Your task to perform on an android device: Open ESPN.com Image 0: 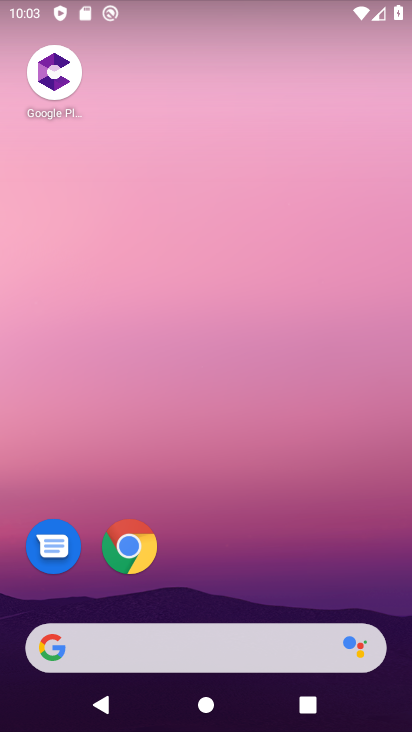
Step 0: click (128, 549)
Your task to perform on an android device: Open ESPN.com Image 1: 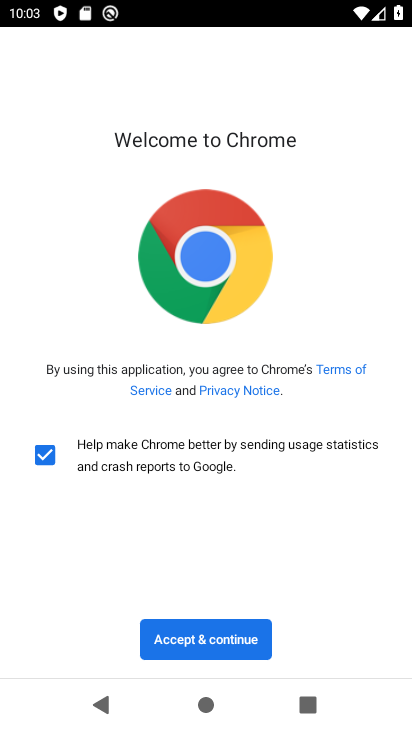
Step 1: click (211, 637)
Your task to perform on an android device: Open ESPN.com Image 2: 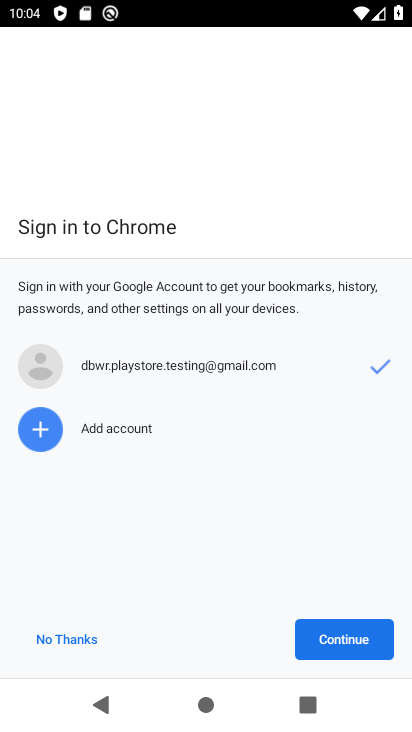
Step 2: click (351, 639)
Your task to perform on an android device: Open ESPN.com Image 3: 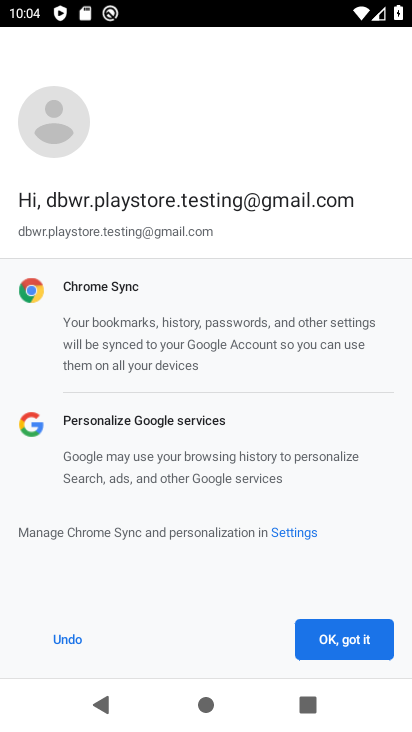
Step 3: click (351, 639)
Your task to perform on an android device: Open ESPN.com Image 4: 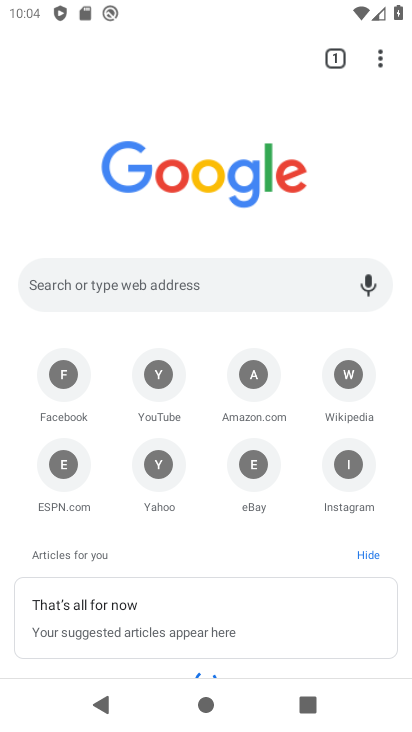
Step 4: click (154, 278)
Your task to perform on an android device: Open ESPN.com Image 5: 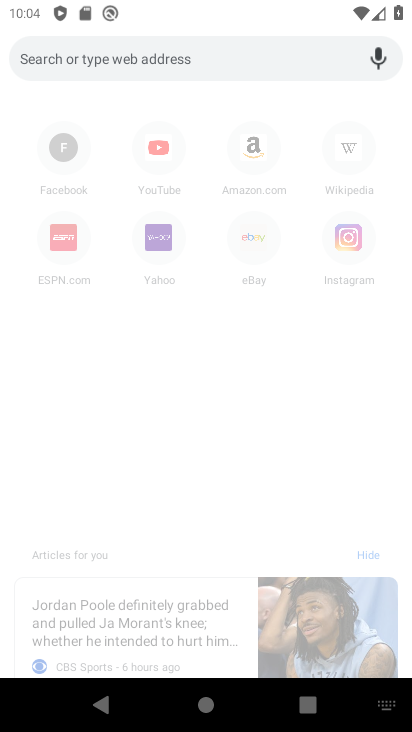
Step 5: type "ESPN.com"
Your task to perform on an android device: Open ESPN.com Image 6: 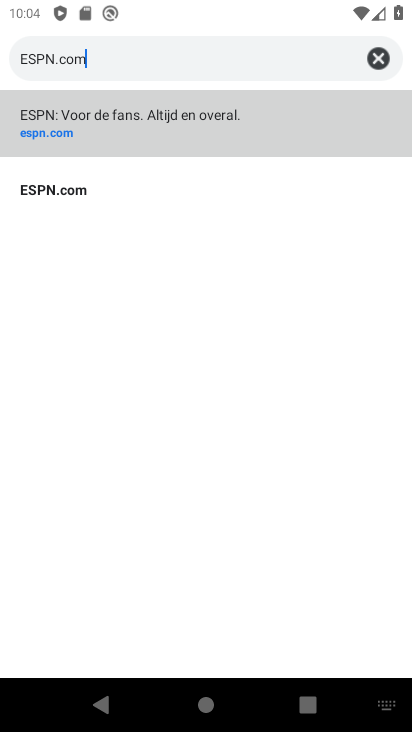
Step 6: type ""
Your task to perform on an android device: Open ESPN.com Image 7: 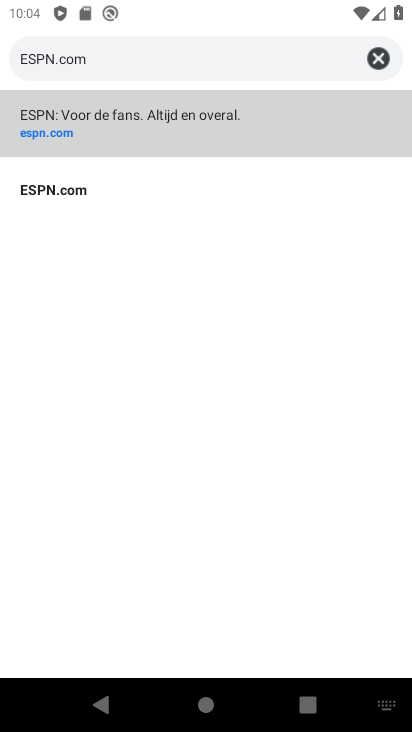
Step 7: click (90, 194)
Your task to perform on an android device: Open ESPN.com Image 8: 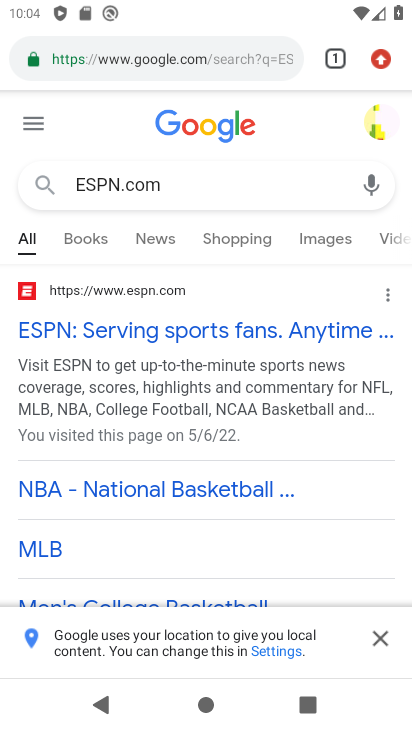
Step 8: click (217, 333)
Your task to perform on an android device: Open ESPN.com Image 9: 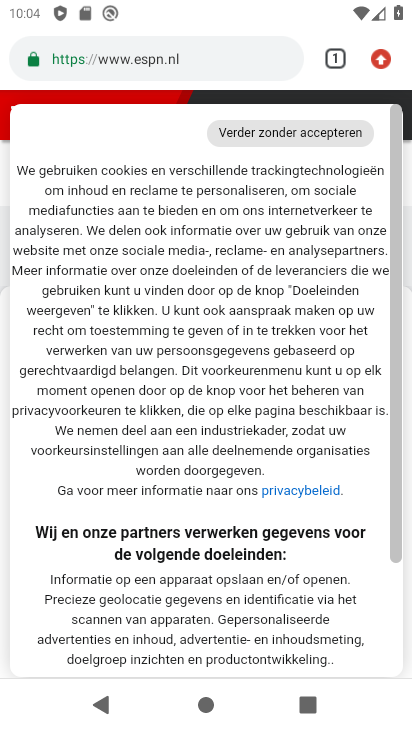
Step 9: task complete